Your task to perform on an android device: Open notification settings Image 0: 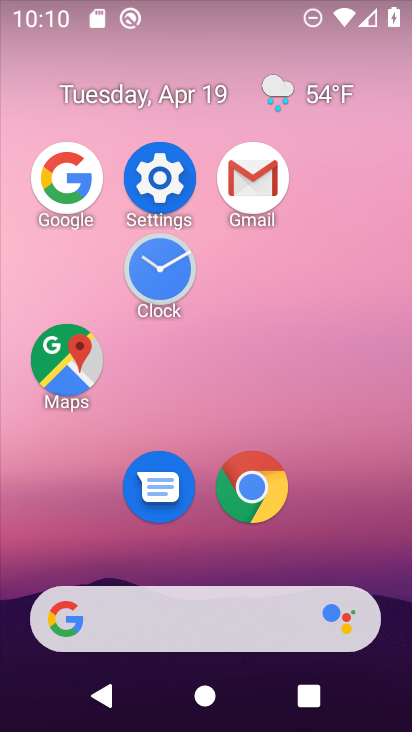
Step 0: click (157, 189)
Your task to perform on an android device: Open notification settings Image 1: 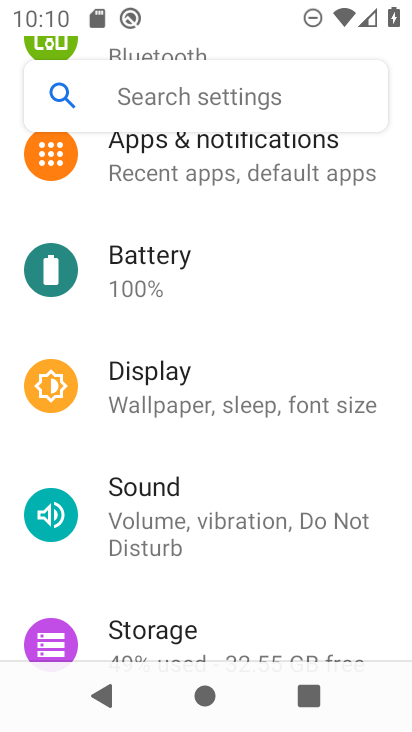
Step 1: click (237, 145)
Your task to perform on an android device: Open notification settings Image 2: 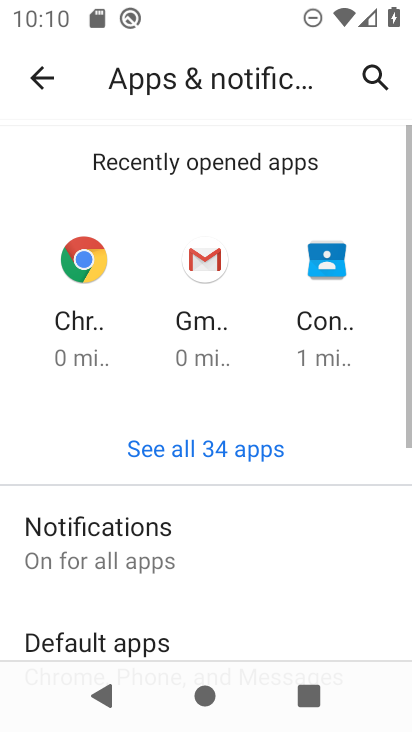
Step 2: task complete